Your task to perform on an android device: Open battery settings Image 0: 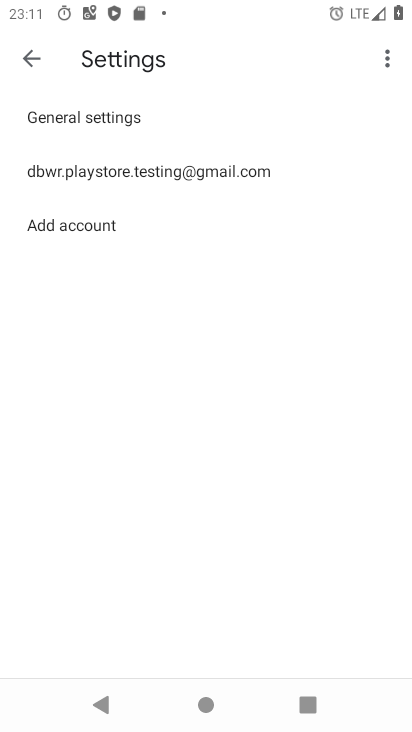
Step 0: press back button
Your task to perform on an android device: Open battery settings Image 1: 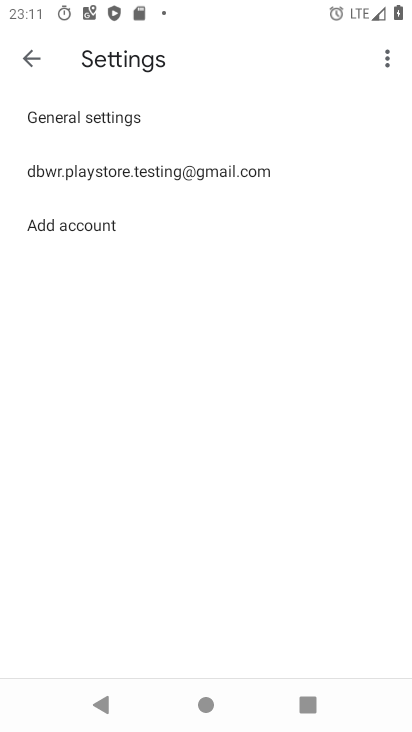
Step 1: press back button
Your task to perform on an android device: Open battery settings Image 2: 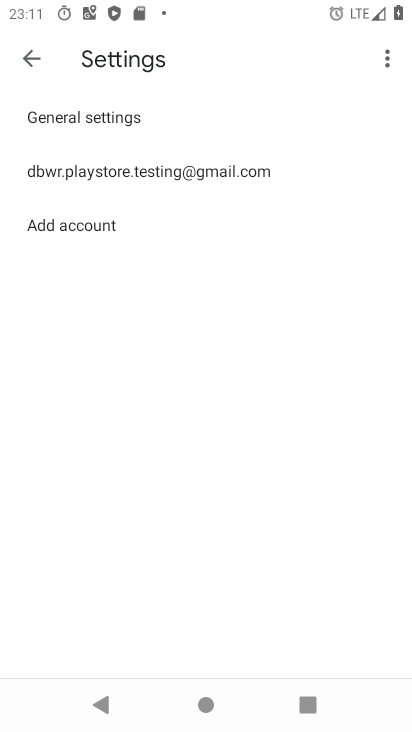
Step 2: press back button
Your task to perform on an android device: Open battery settings Image 3: 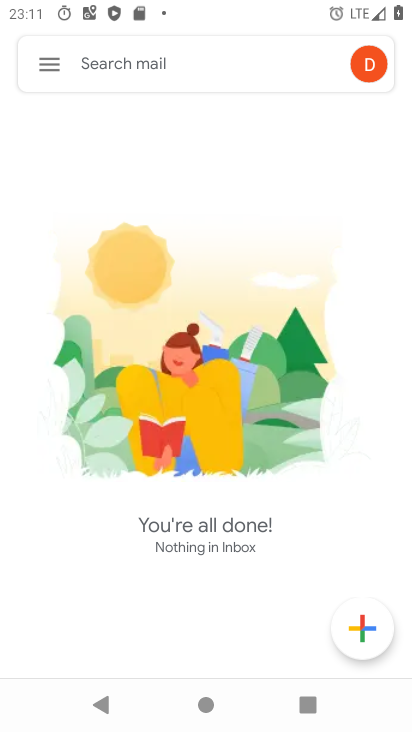
Step 3: press home button
Your task to perform on an android device: Open battery settings Image 4: 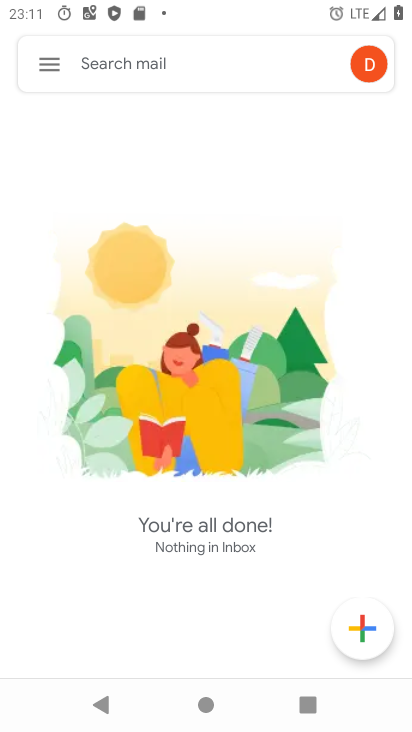
Step 4: press home button
Your task to perform on an android device: Open battery settings Image 5: 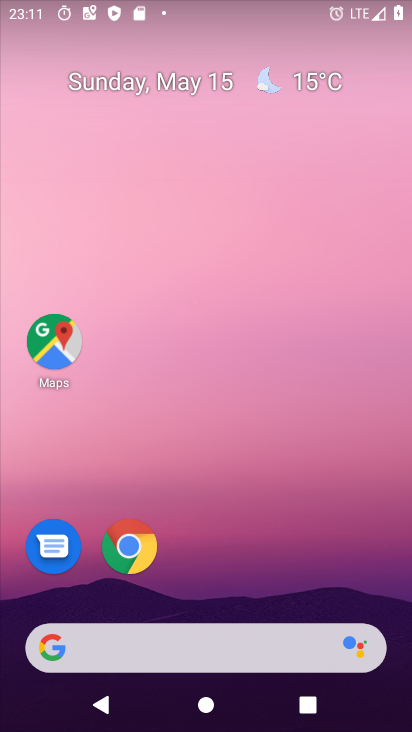
Step 5: drag from (275, 615) to (226, 74)
Your task to perform on an android device: Open battery settings Image 6: 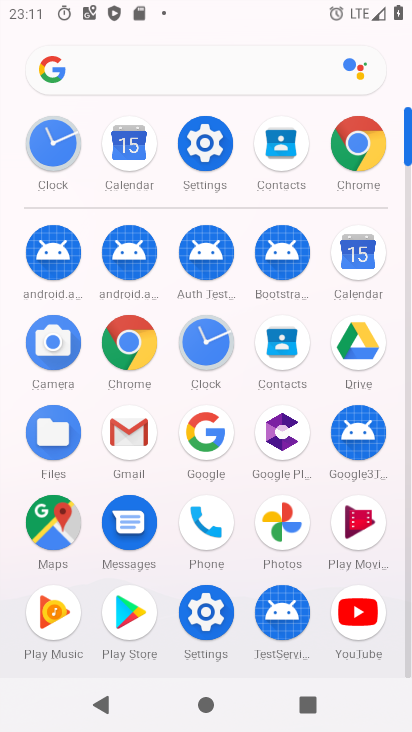
Step 6: click (198, 162)
Your task to perform on an android device: Open battery settings Image 7: 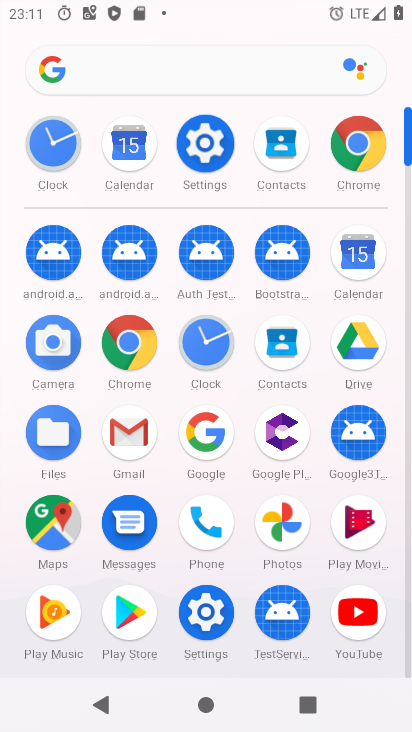
Step 7: click (205, 153)
Your task to perform on an android device: Open battery settings Image 8: 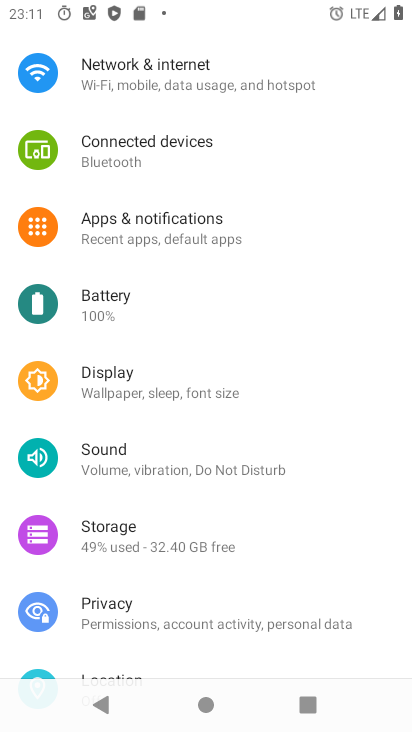
Step 8: click (106, 296)
Your task to perform on an android device: Open battery settings Image 9: 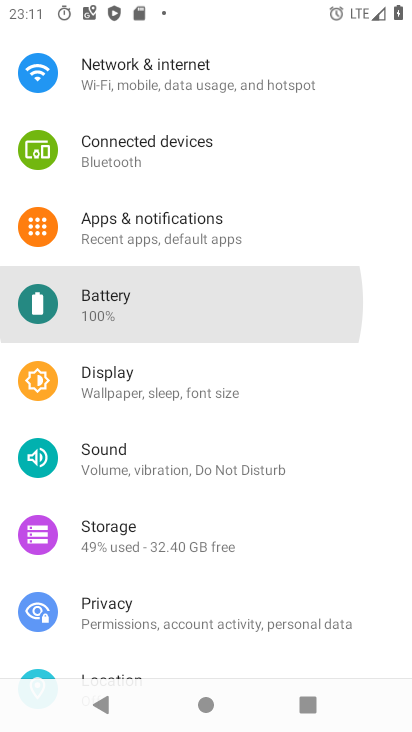
Step 9: click (103, 297)
Your task to perform on an android device: Open battery settings Image 10: 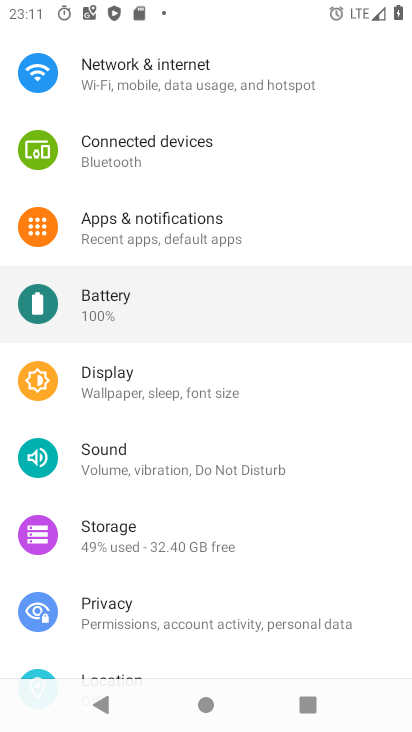
Step 10: click (102, 297)
Your task to perform on an android device: Open battery settings Image 11: 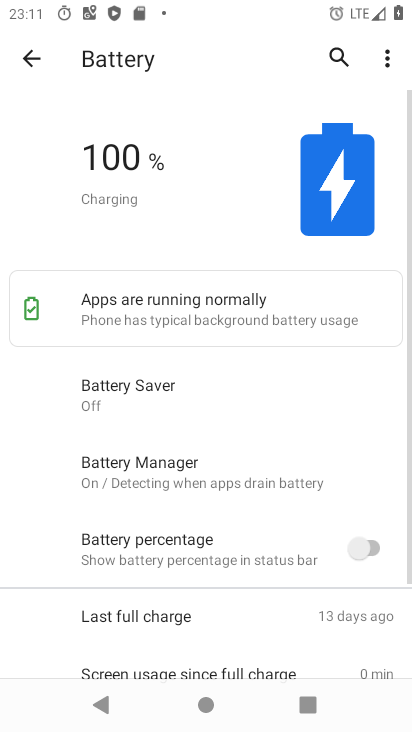
Step 11: drag from (158, 384) to (125, 0)
Your task to perform on an android device: Open battery settings Image 12: 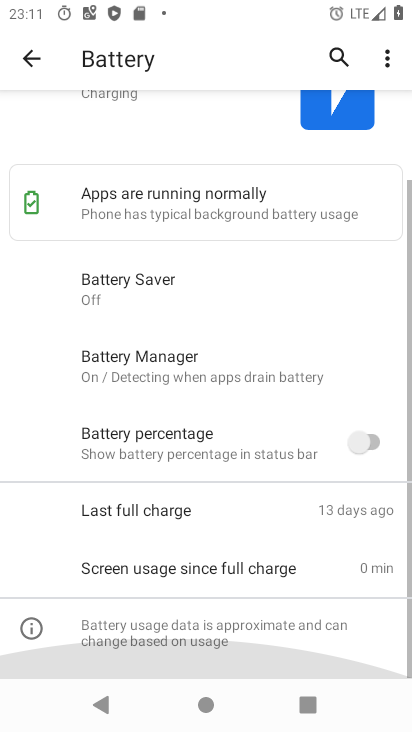
Step 12: drag from (192, 410) to (163, 106)
Your task to perform on an android device: Open battery settings Image 13: 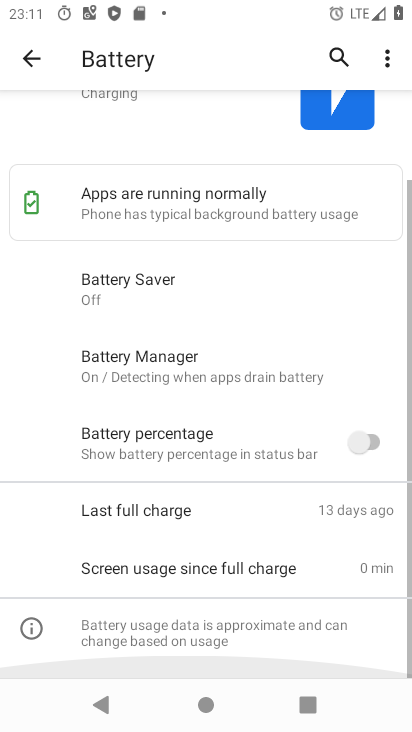
Step 13: drag from (165, 282) to (165, 81)
Your task to perform on an android device: Open battery settings Image 14: 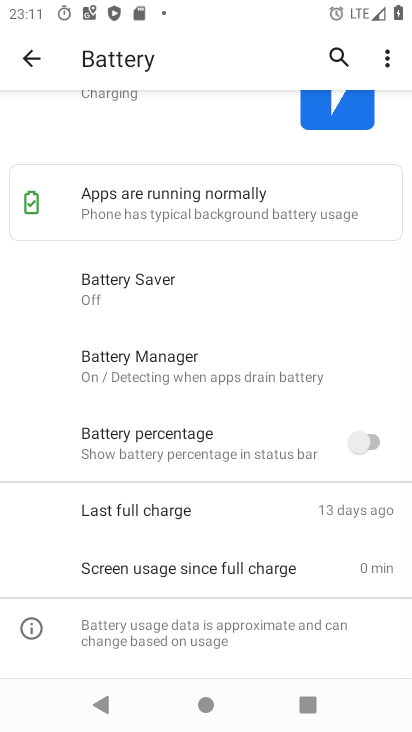
Step 14: drag from (189, 492) to (213, 124)
Your task to perform on an android device: Open battery settings Image 15: 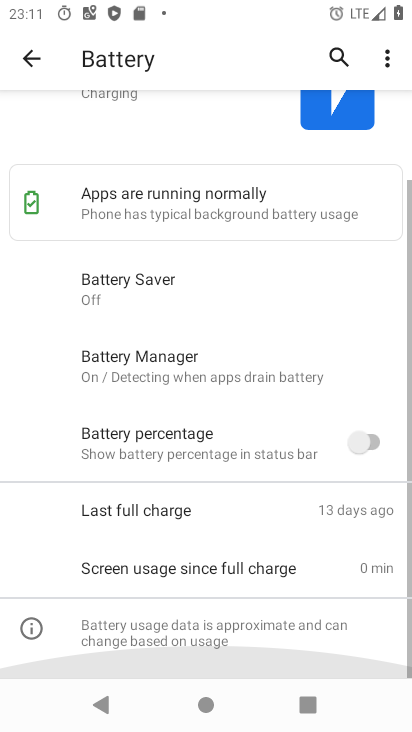
Step 15: click (226, 108)
Your task to perform on an android device: Open battery settings Image 16: 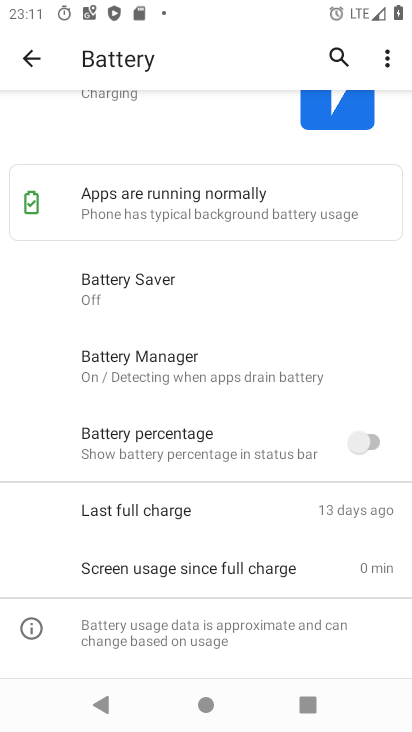
Step 16: task complete